Your task to perform on an android device: open app "Flipkart Online Shopping App" (install if not already installed) and go to login screen Image 0: 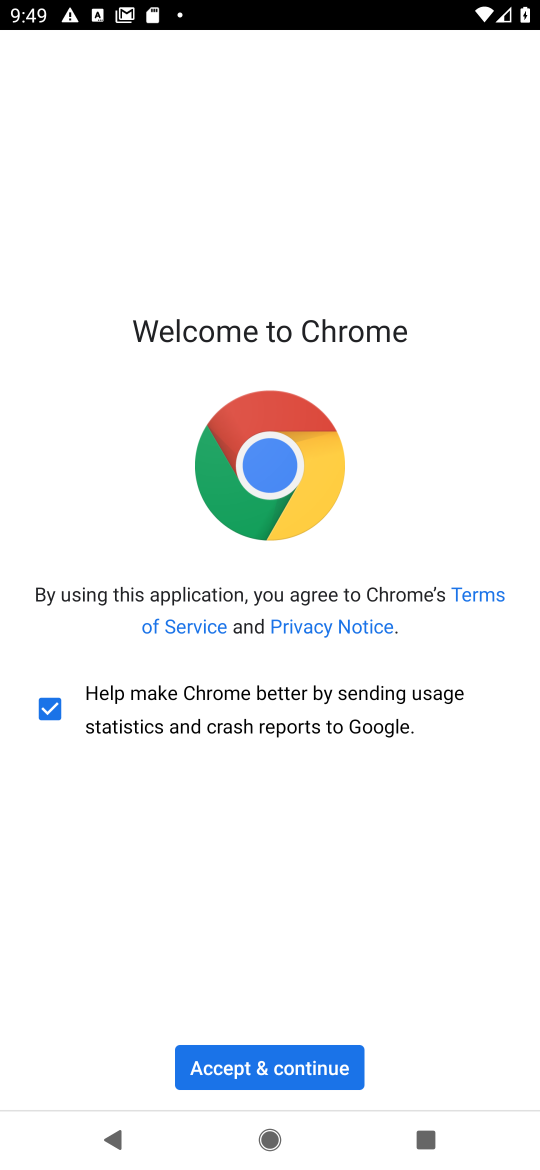
Step 0: press home button
Your task to perform on an android device: open app "Flipkart Online Shopping App" (install if not already installed) and go to login screen Image 1: 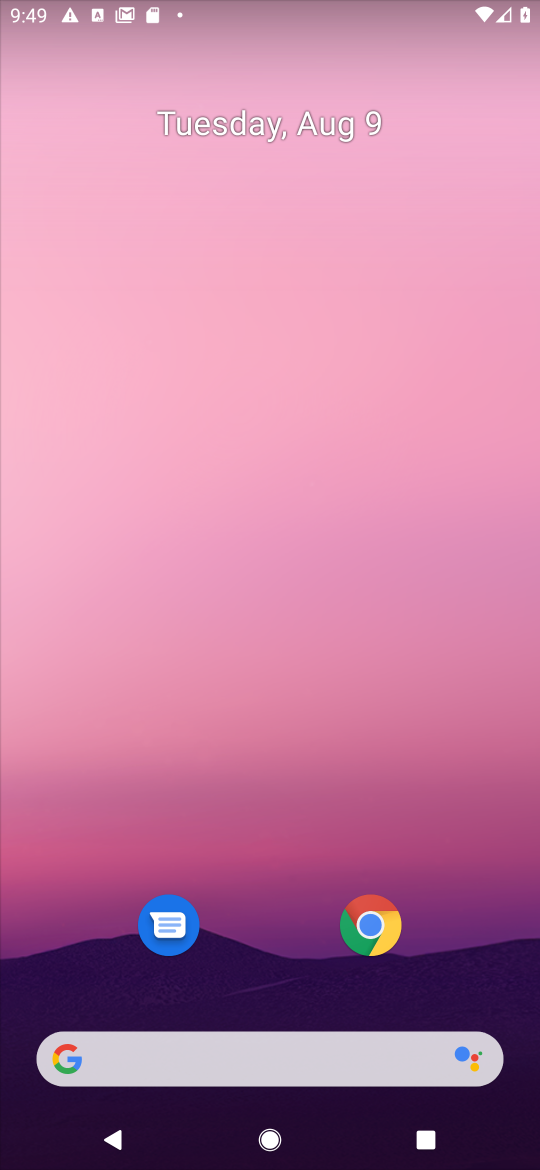
Step 1: drag from (320, 127) to (327, 63)
Your task to perform on an android device: open app "Flipkart Online Shopping App" (install if not already installed) and go to login screen Image 2: 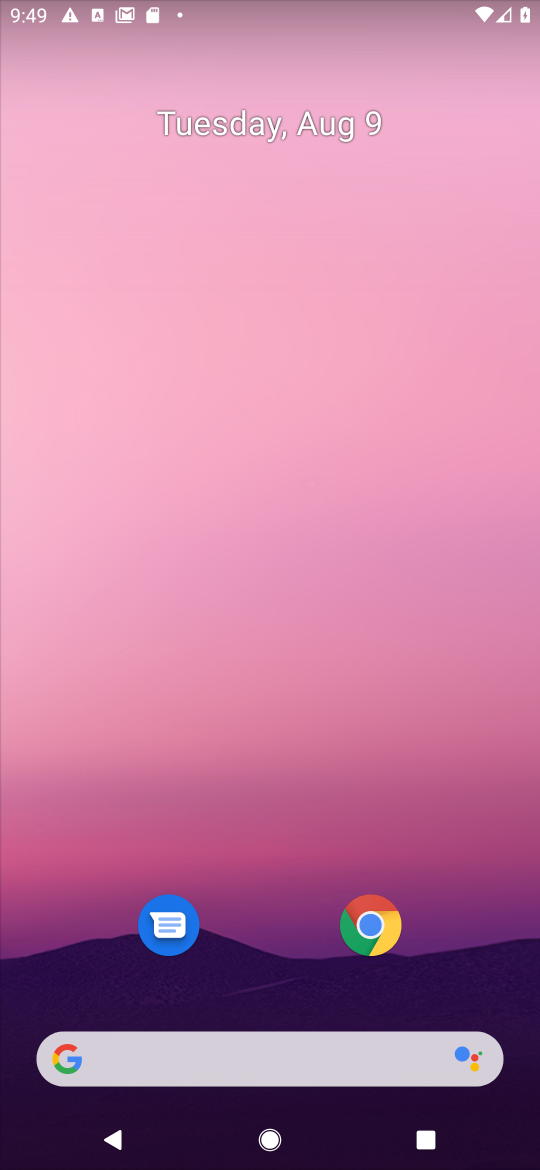
Step 2: drag from (283, 919) to (303, 153)
Your task to perform on an android device: open app "Flipkart Online Shopping App" (install if not already installed) and go to login screen Image 3: 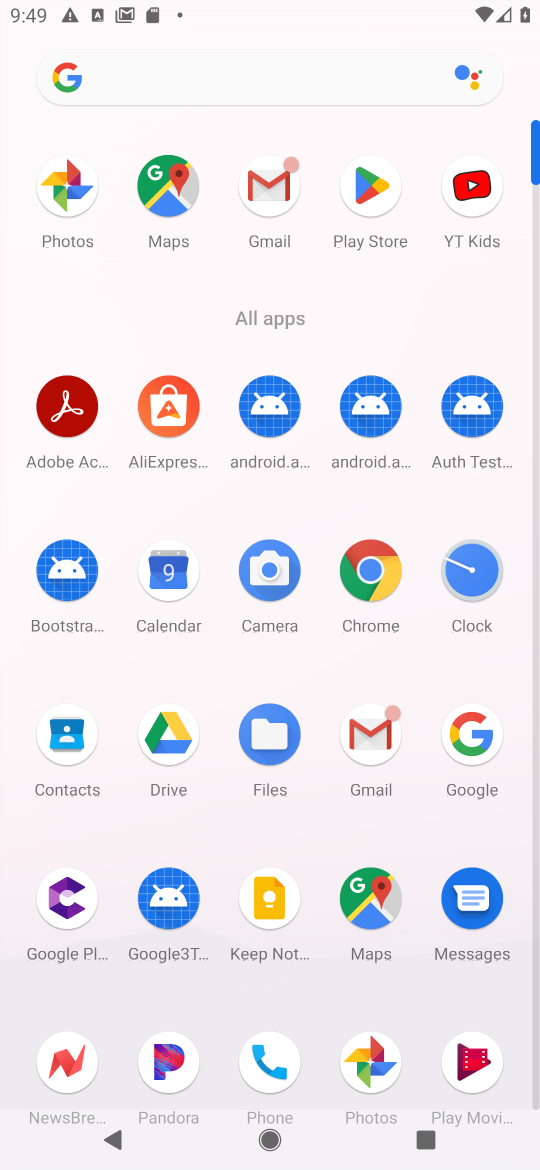
Step 3: click (373, 187)
Your task to perform on an android device: open app "Flipkart Online Shopping App" (install if not already installed) and go to login screen Image 4: 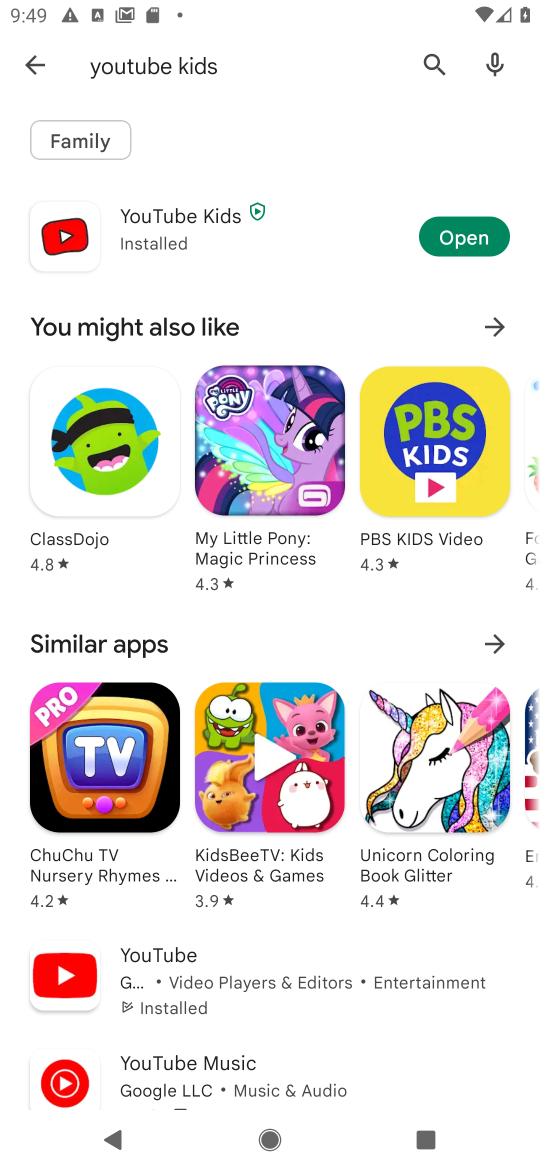
Step 4: click (35, 63)
Your task to perform on an android device: open app "Flipkart Online Shopping App" (install if not already installed) and go to login screen Image 5: 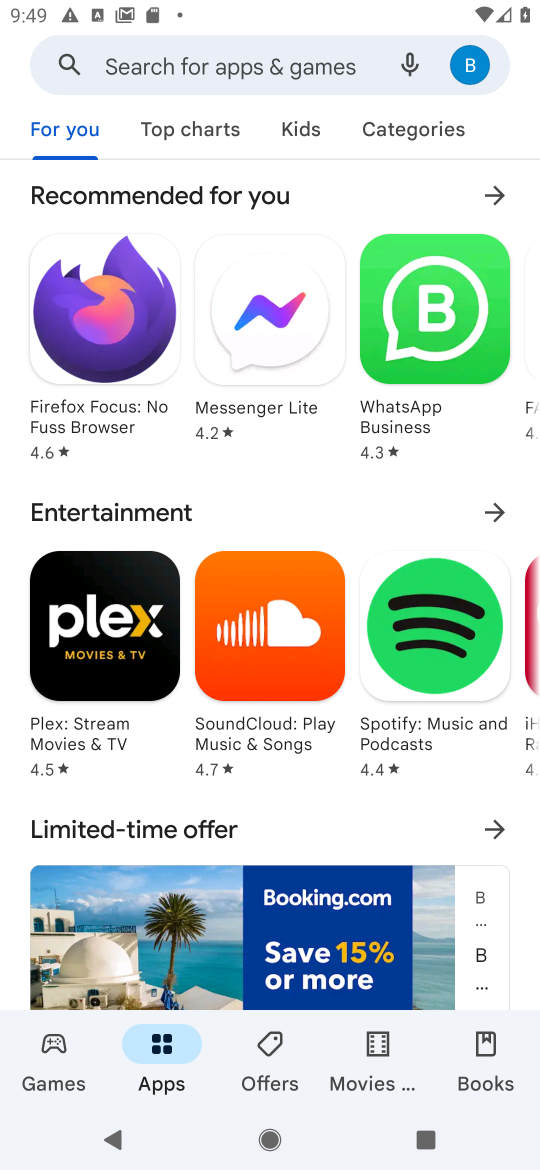
Step 5: click (208, 63)
Your task to perform on an android device: open app "Flipkart Online Shopping App" (install if not already installed) and go to login screen Image 6: 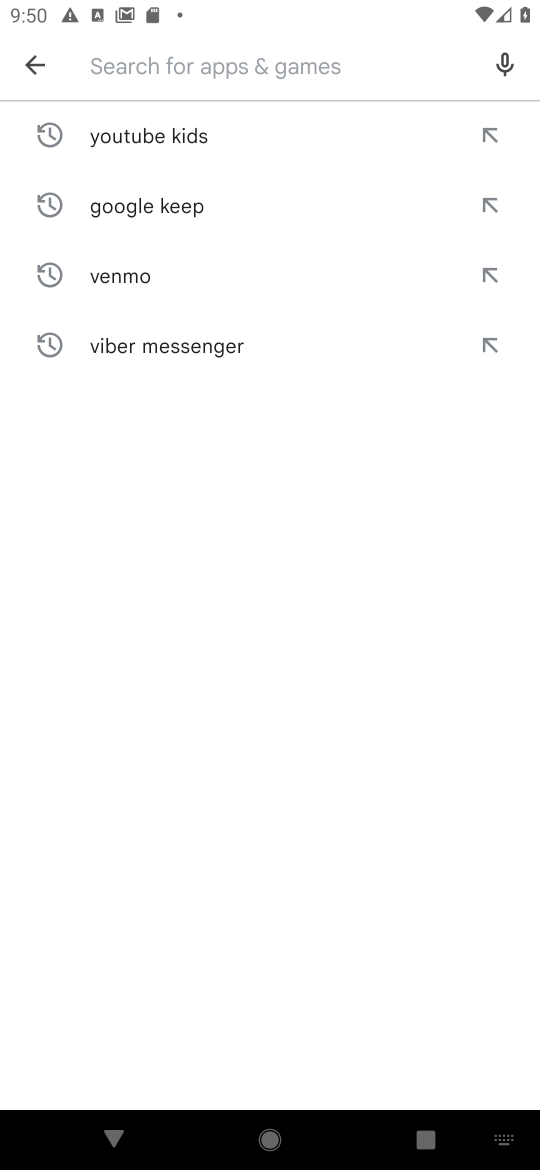
Step 6: type "Flipkart Online Shopping App"
Your task to perform on an android device: open app "Flipkart Online Shopping App" (install if not already installed) and go to login screen Image 7: 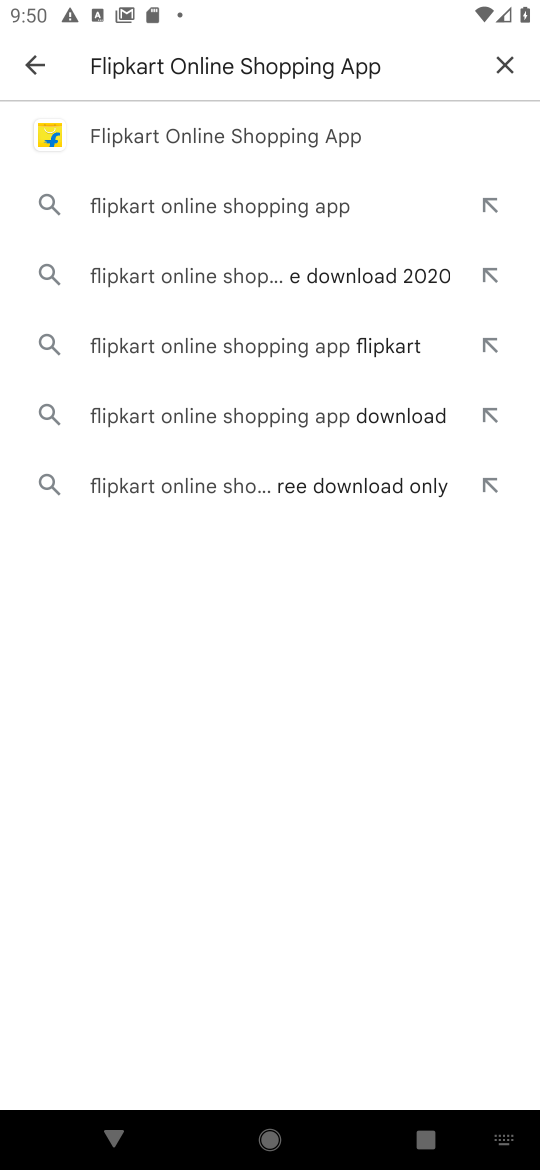
Step 7: click (249, 136)
Your task to perform on an android device: open app "Flipkart Online Shopping App" (install if not already installed) and go to login screen Image 8: 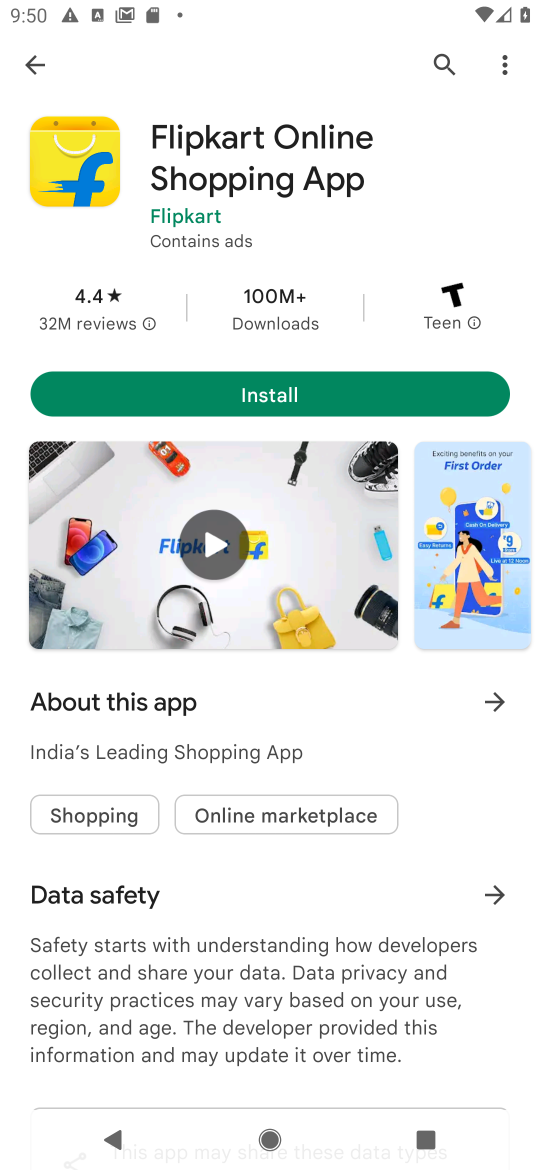
Step 8: click (292, 390)
Your task to perform on an android device: open app "Flipkart Online Shopping App" (install if not already installed) and go to login screen Image 9: 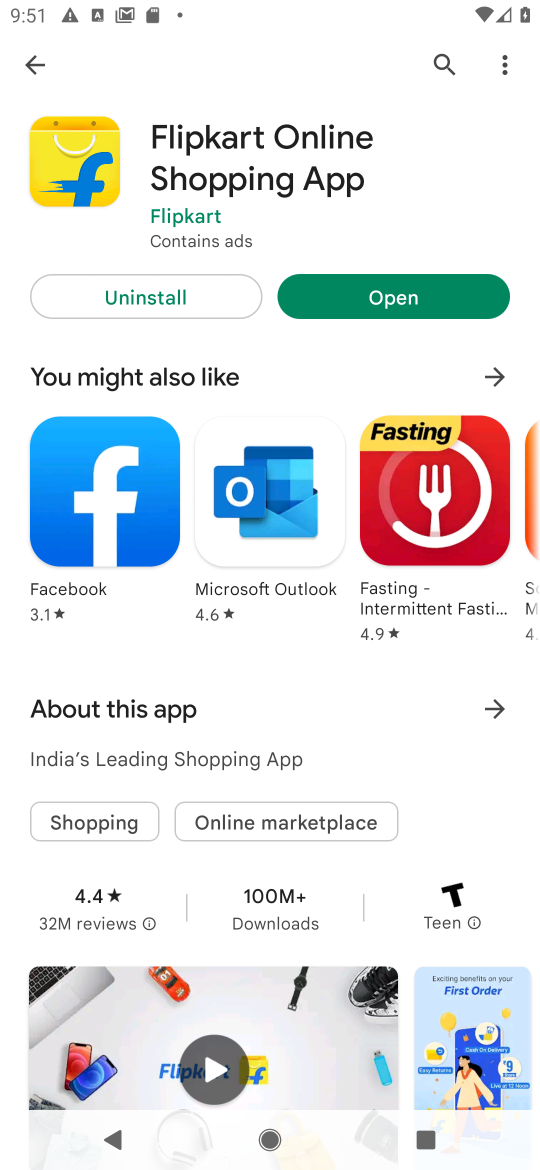
Step 9: click (419, 298)
Your task to perform on an android device: open app "Flipkart Online Shopping App" (install if not already installed) and go to login screen Image 10: 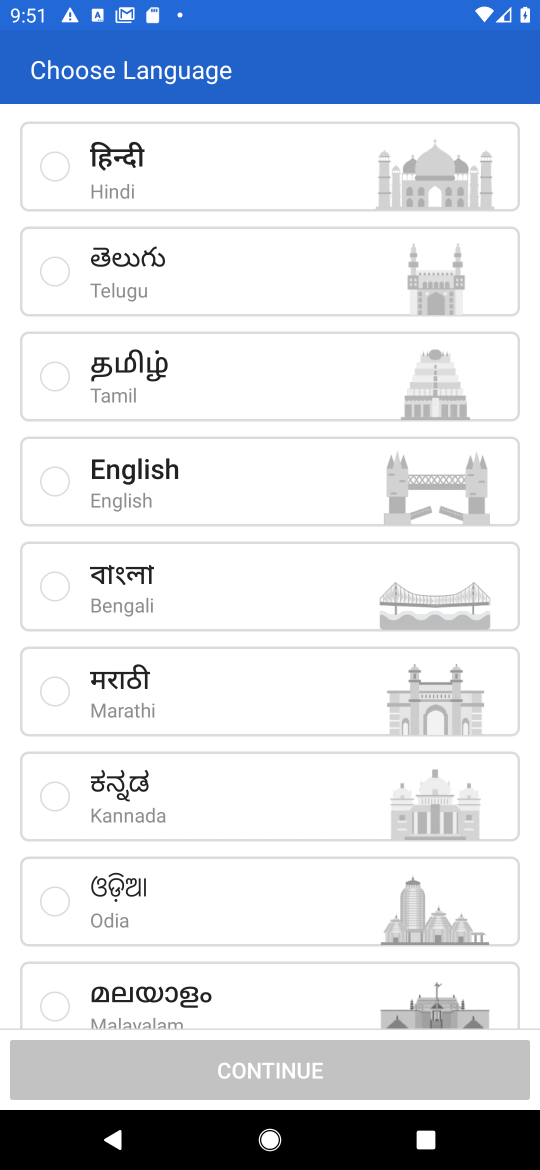
Step 10: click (59, 479)
Your task to perform on an android device: open app "Flipkart Online Shopping App" (install if not already installed) and go to login screen Image 11: 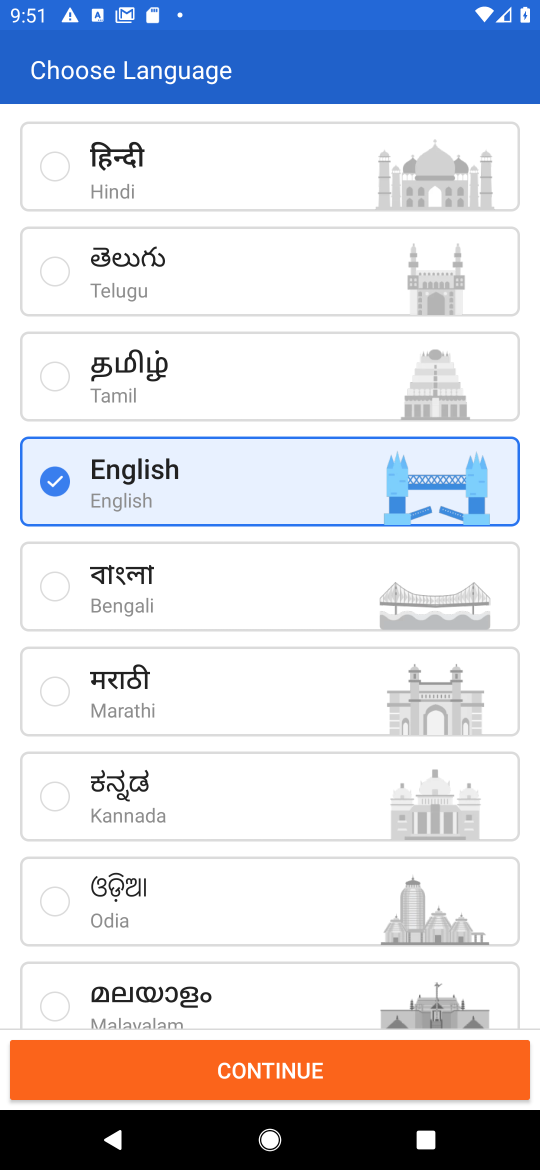
Step 11: click (257, 1073)
Your task to perform on an android device: open app "Flipkart Online Shopping App" (install if not already installed) and go to login screen Image 12: 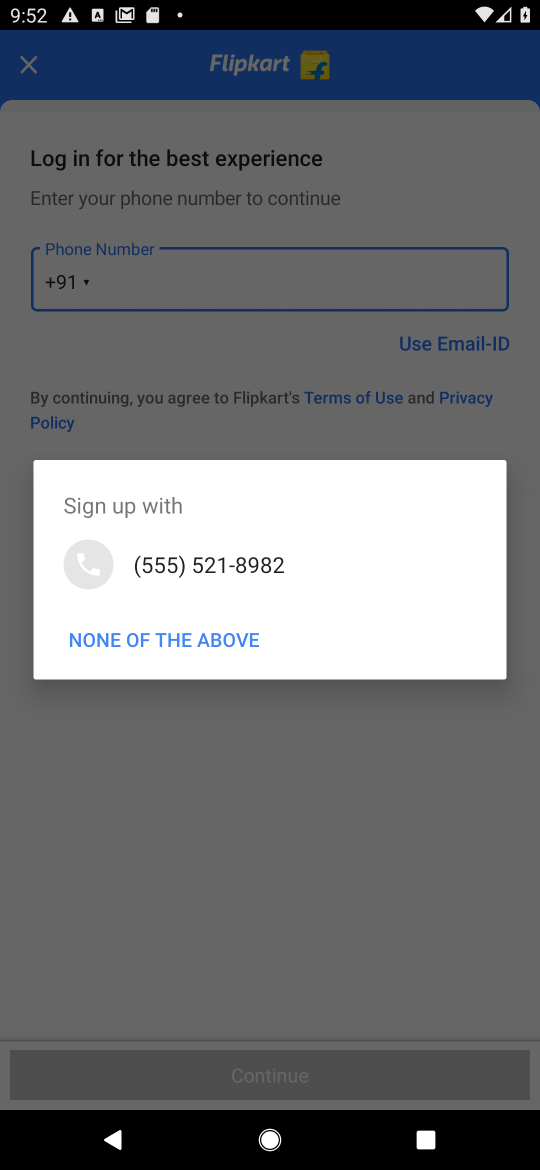
Step 12: task complete